Your task to perform on an android device: Toggle the flashlight Image 0: 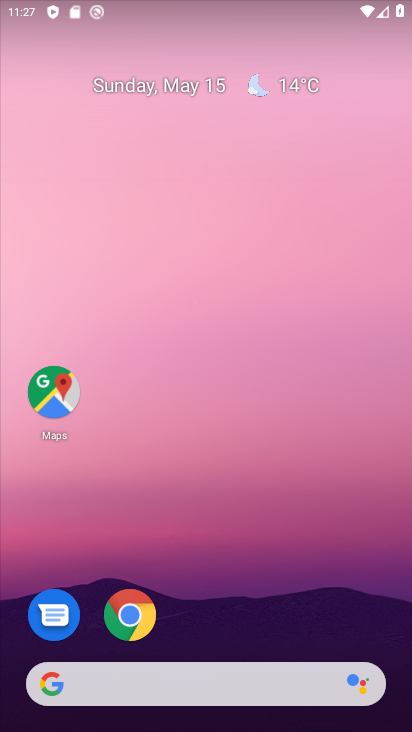
Step 0: drag from (236, 552) to (219, 11)
Your task to perform on an android device: Toggle the flashlight Image 1: 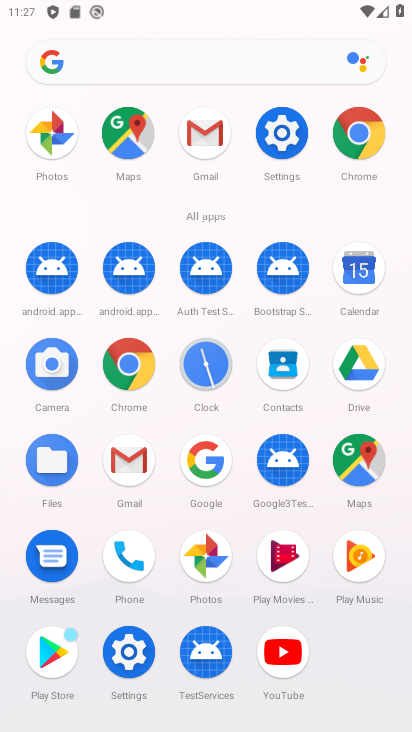
Step 1: click (267, 130)
Your task to perform on an android device: Toggle the flashlight Image 2: 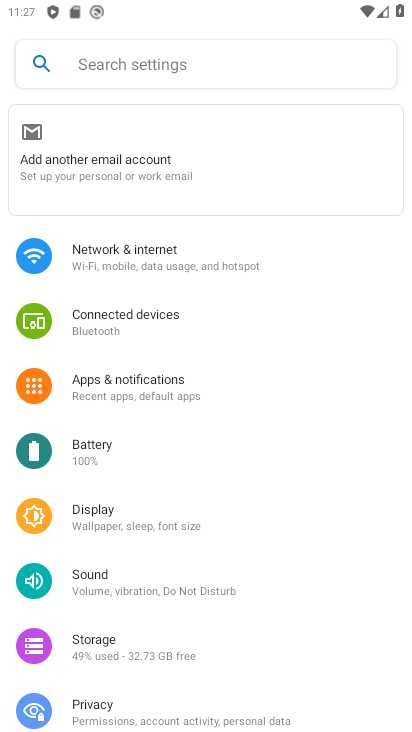
Step 2: task complete